Your task to perform on an android device: show emergency info Image 0: 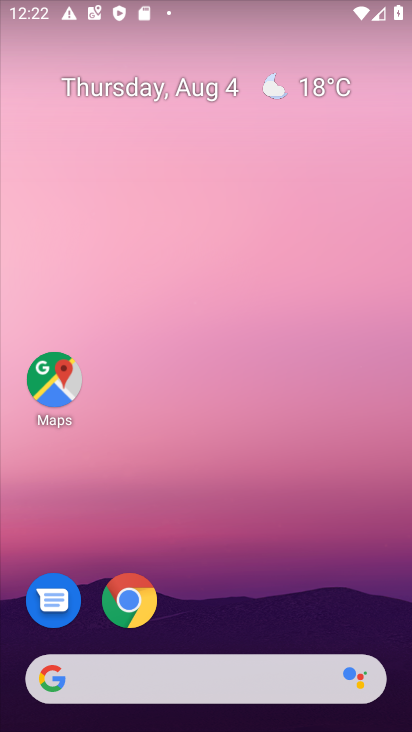
Step 0: press home button
Your task to perform on an android device: show emergency info Image 1: 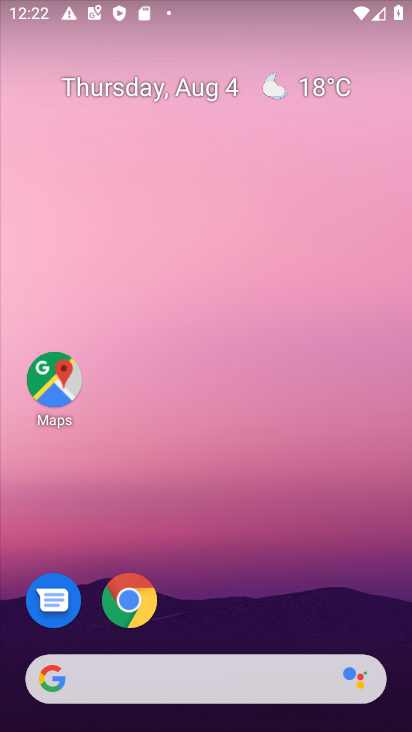
Step 1: drag from (188, 647) to (326, 61)
Your task to perform on an android device: show emergency info Image 2: 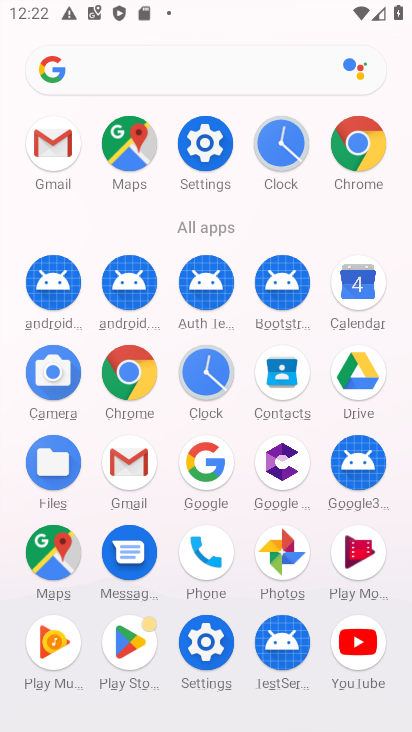
Step 2: click (197, 150)
Your task to perform on an android device: show emergency info Image 3: 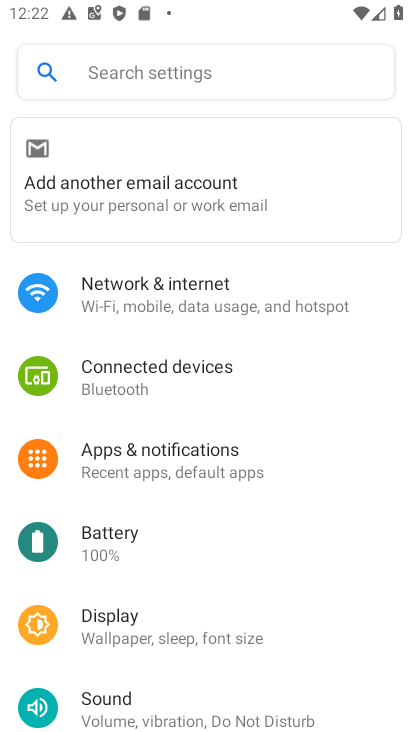
Step 3: drag from (228, 601) to (355, 122)
Your task to perform on an android device: show emergency info Image 4: 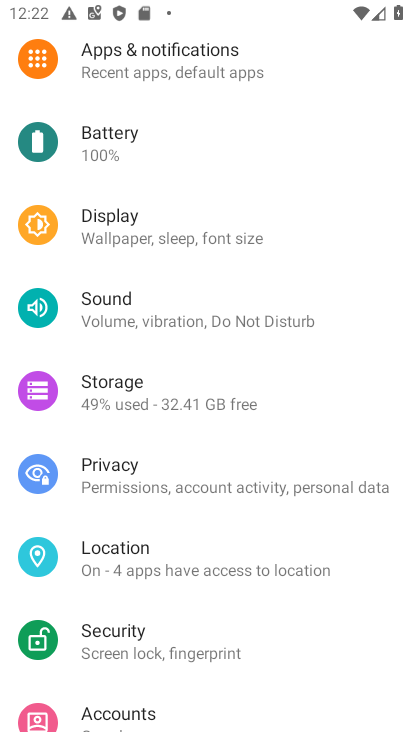
Step 4: drag from (253, 612) to (340, 62)
Your task to perform on an android device: show emergency info Image 5: 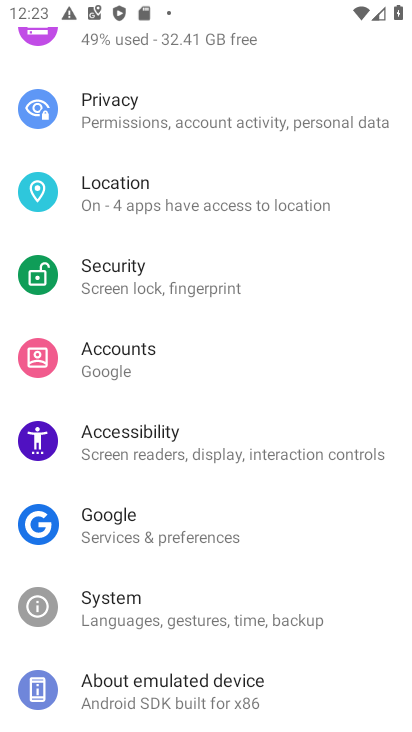
Step 5: click (172, 691)
Your task to perform on an android device: show emergency info Image 6: 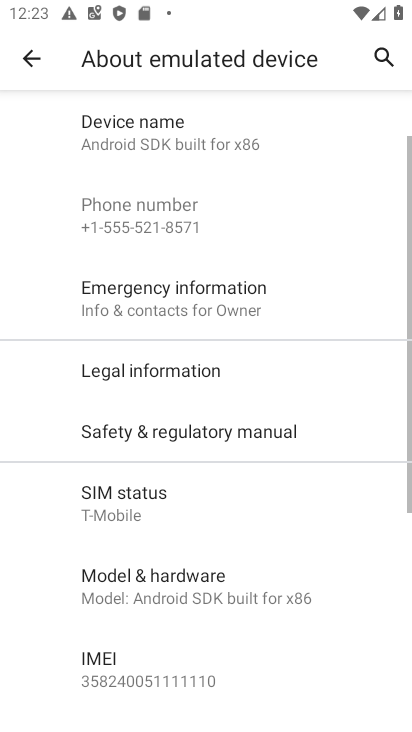
Step 6: click (212, 307)
Your task to perform on an android device: show emergency info Image 7: 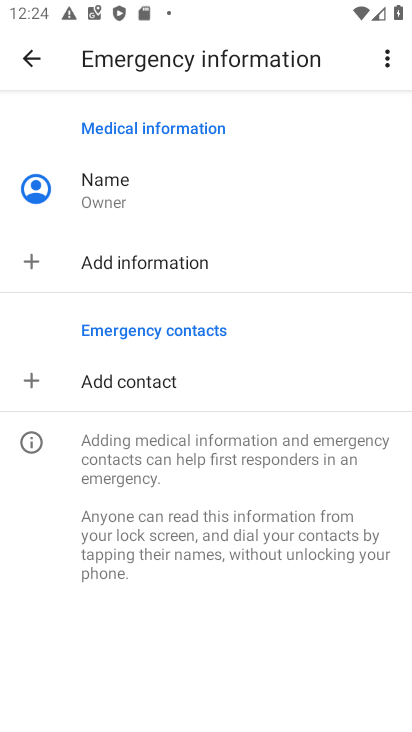
Step 7: task complete